Your task to perform on an android device: Open the Play Movies app and select the watchlist tab. Image 0: 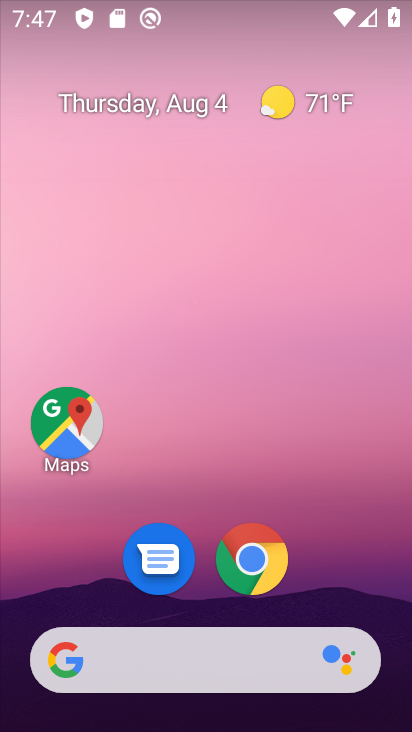
Step 0: click (229, 307)
Your task to perform on an android device: Open the Play Movies app and select the watchlist tab. Image 1: 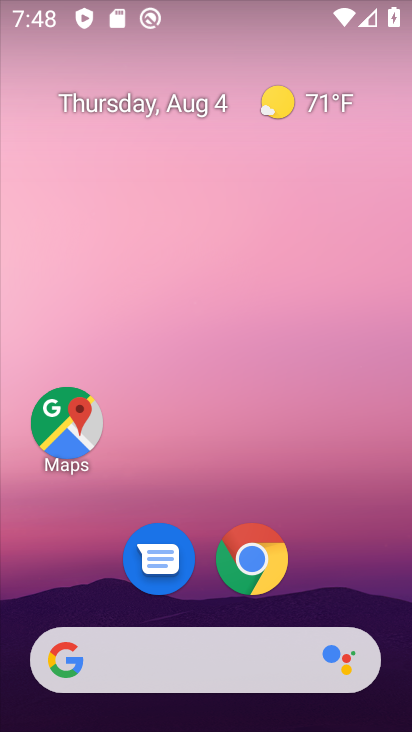
Step 1: drag from (240, 631) to (199, 37)
Your task to perform on an android device: Open the Play Movies app and select the watchlist tab. Image 2: 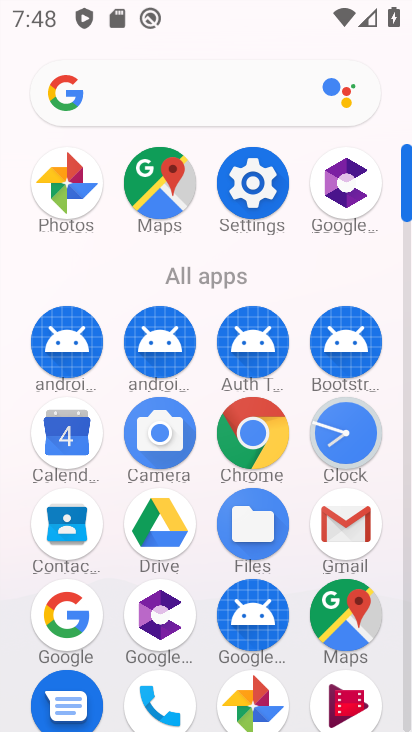
Step 2: click (348, 696)
Your task to perform on an android device: Open the Play Movies app and select the watchlist tab. Image 3: 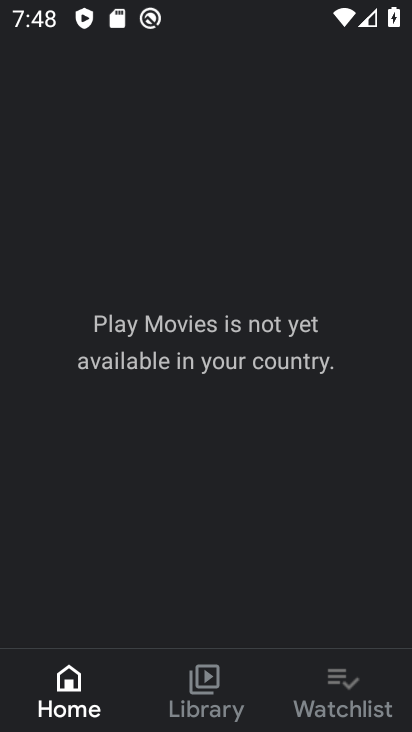
Step 3: click (361, 689)
Your task to perform on an android device: Open the Play Movies app and select the watchlist tab. Image 4: 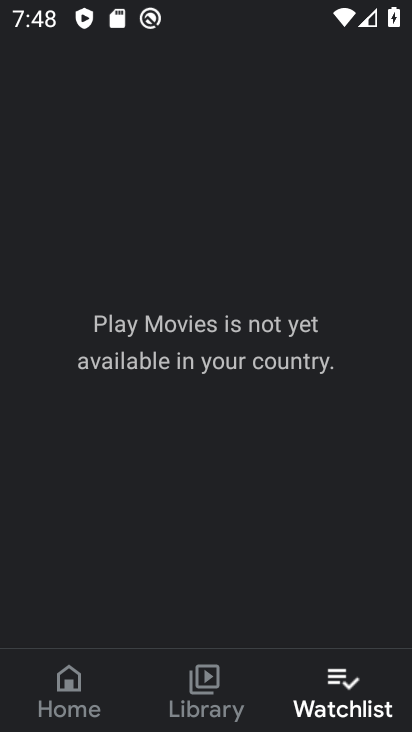
Step 4: task complete